Your task to perform on an android device: Empty the shopping cart on target.com. Search for "acer predator" on target.com, select the first entry, and add it to the cart. Image 0: 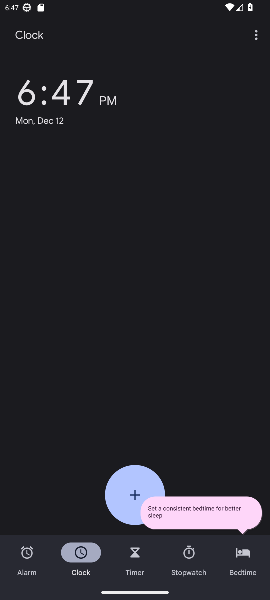
Step 0: press home button
Your task to perform on an android device: Empty the shopping cart on target.com. Search for "acer predator" on target.com, select the first entry, and add it to the cart. Image 1: 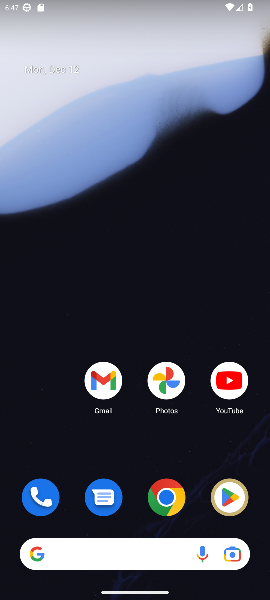
Step 1: drag from (58, 453) to (51, 73)
Your task to perform on an android device: Empty the shopping cart on target.com. Search for "acer predator" on target.com, select the first entry, and add it to the cart. Image 2: 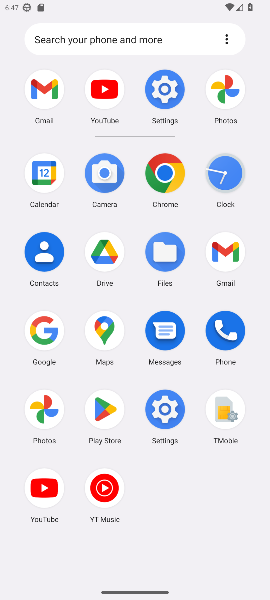
Step 2: click (40, 331)
Your task to perform on an android device: Empty the shopping cart on target.com. Search for "acer predator" on target.com, select the first entry, and add it to the cart. Image 3: 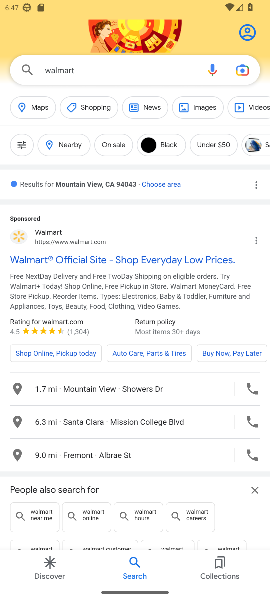
Step 3: click (120, 61)
Your task to perform on an android device: Empty the shopping cart on target.com. Search for "acer predator" on target.com, select the first entry, and add it to the cart. Image 4: 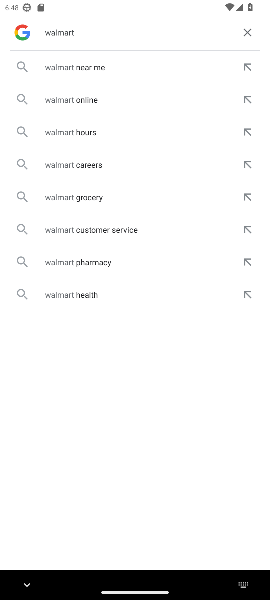
Step 4: click (249, 29)
Your task to perform on an android device: Empty the shopping cart on target.com. Search for "acer predator" on target.com, select the first entry, and add it to the cart. Image 5: 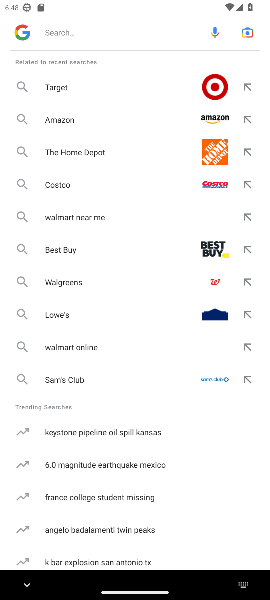
Step 5: type "target.com"
Your task to perform on an android device: Empty the shopping cart on target.com. Search for "acer predator" on target.com, select the first entry, and add it to the cart. Image 6: 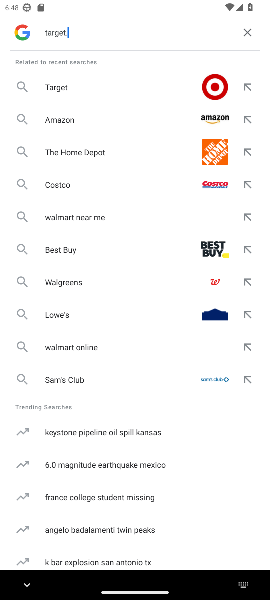
Step 6: press enter
Your task to perform on an android device: Empty the shopping cart on target.com. Search for "acer predator" on target.com, select the first entry, and add it to the cart. Image 7: 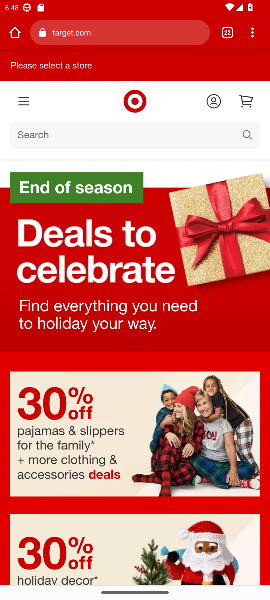
Step 7: click (247, 101)
Your task to perform on an android device: Empty the shopping cart on target.com. Search for "acer predator" on target.com, select the first entry, and add it to the cart. Image 8: 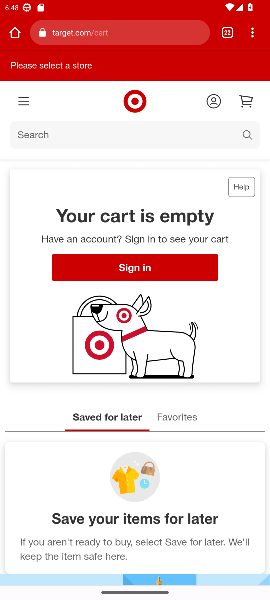
Step 8: click (43, 134)
Your task to perform on an android device: Empty the shopping cart on target.com. Search for "acer predator" on target.com, select the first entry, and add it to the cart. Image 9: 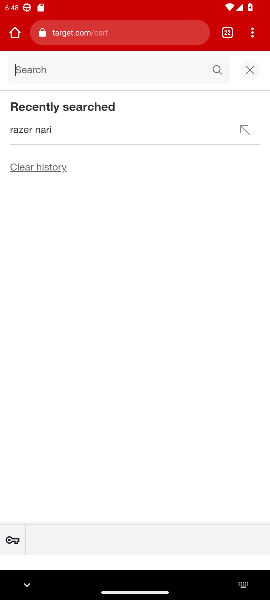
Step 9: type "acer predator"
Your task to perform on an android device: Empty the shopping cart on target.com. Search for "acer predator" on target.com, select the first entry, and add it to the cart. Image 10: 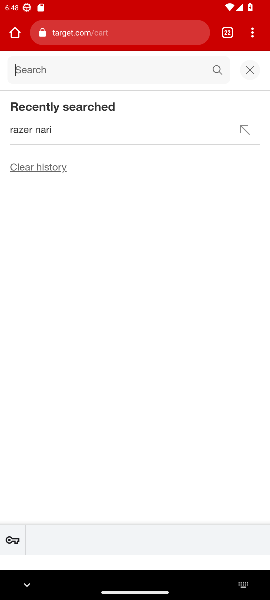
Step 10: press enter
Your task to perform on an android device: Empty the shopping cart on target.com. Search for "acer predator" on target.com, select the first entry, and add it to the cart. Image 11: 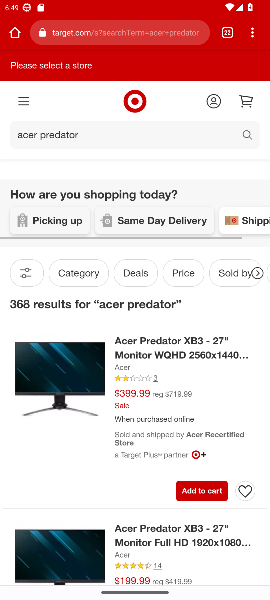
Step 11: click (190, 492)
Your task to perform on an android device: Empty the shopping cart on target.com. Search for "acer predator" on target.com, select the first entry, and add it to the cart. Image 12: 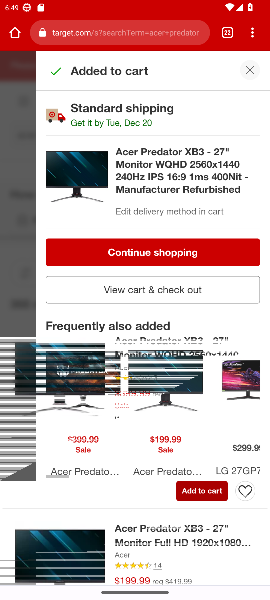
Step 12: task complete